Your task to perform on an android device: Open Android settings Image 0: 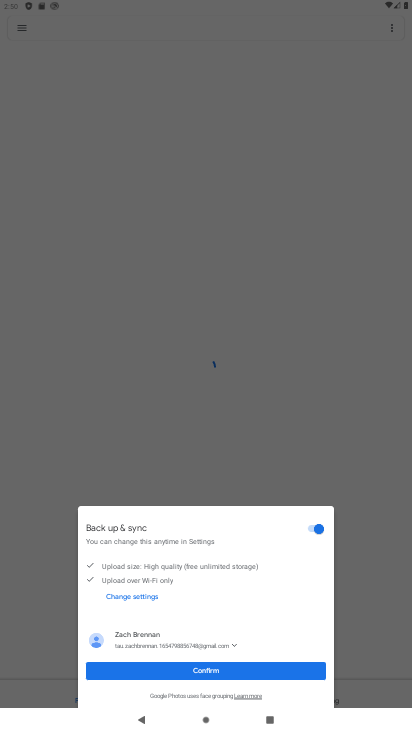
Step 0: press home button
Your task to perform on an android device: Open Android settings Image 1: 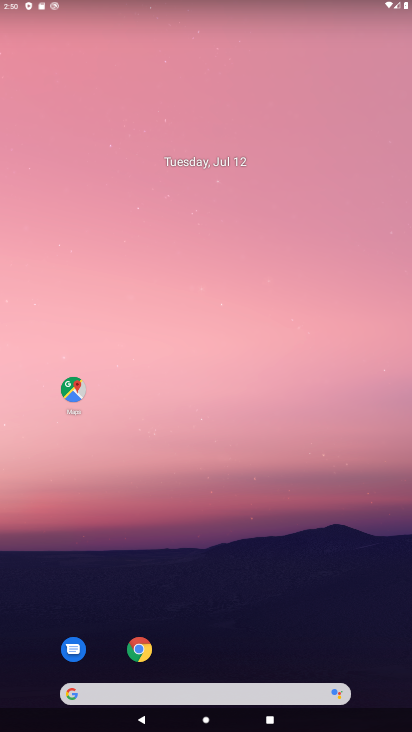
Step 1: drag from (231, 674) to (403, 142)
Your task to perform on an android device: Open Android settings Image 2: 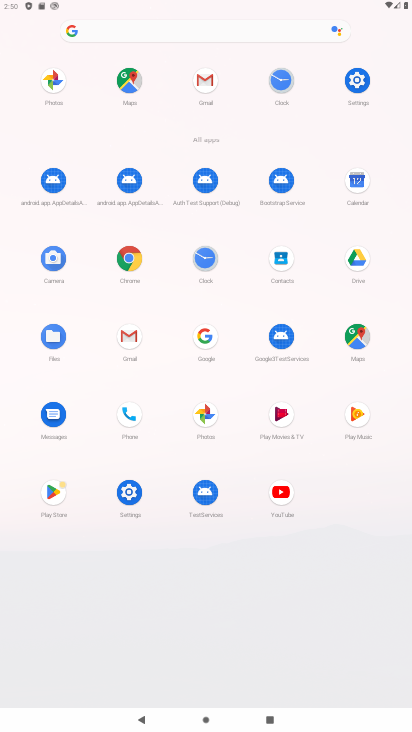
Step 2: click (129, 489)
Your task to perform on an android device: Open Android settings Image 3: 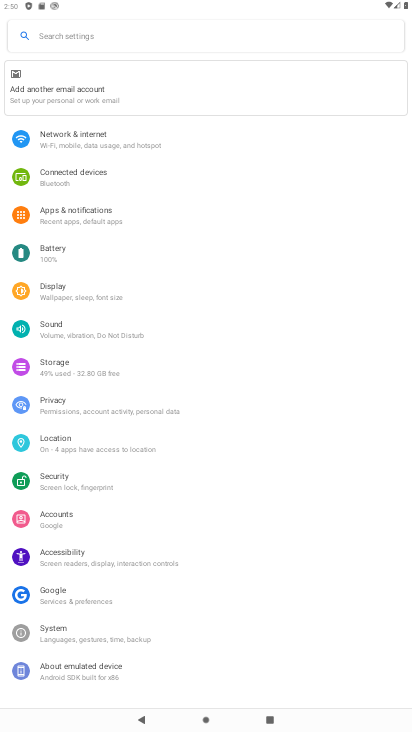
Step 3: task complete